Your task to perform on an android device: change the upload size in google photos Image 0: 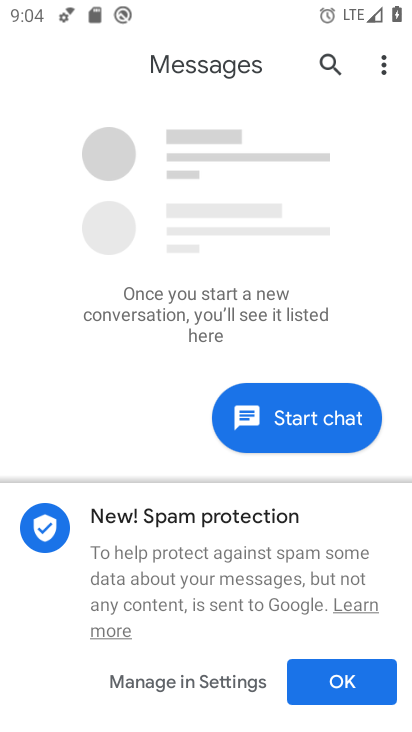
Step 0: press home button
Your task to perform on an android device: change the upload size in google photos Image 1: 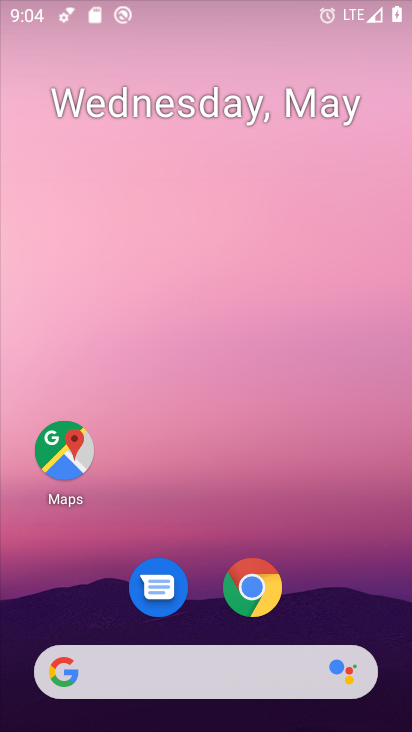
Step 1: drag from (219, 629) to (290, 132)
Your task to perform on an android device: change the upload size in google photos Image 2: 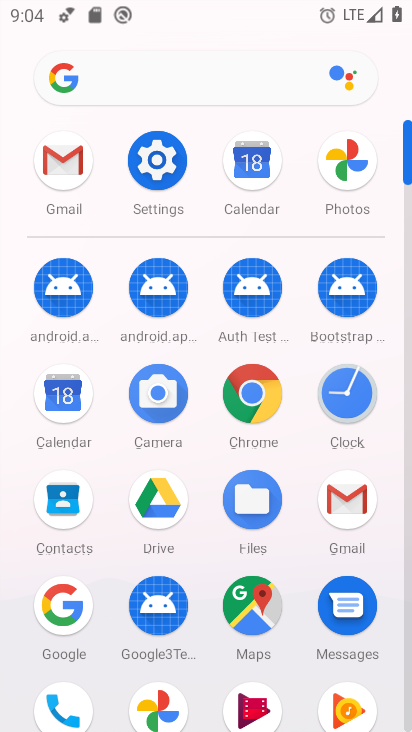
Step 2: drag from (201, 576) to (227, 320)
Your task to perform on an android device: change the upload size in google photos Image 3: 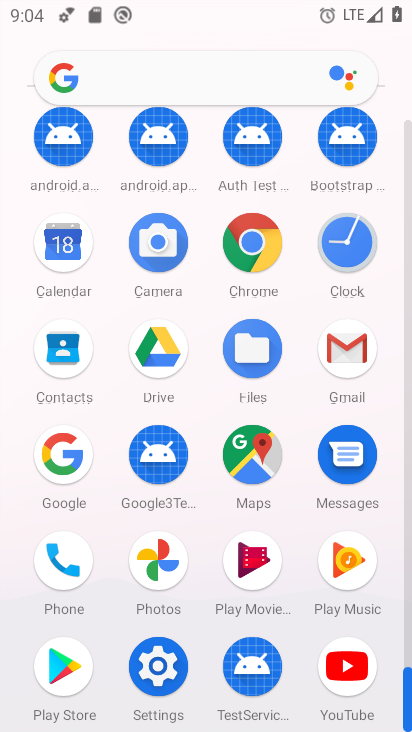
Step 3: click (171, 585)
Your task to perform on an android device: change the upload size in google photos Image 4: 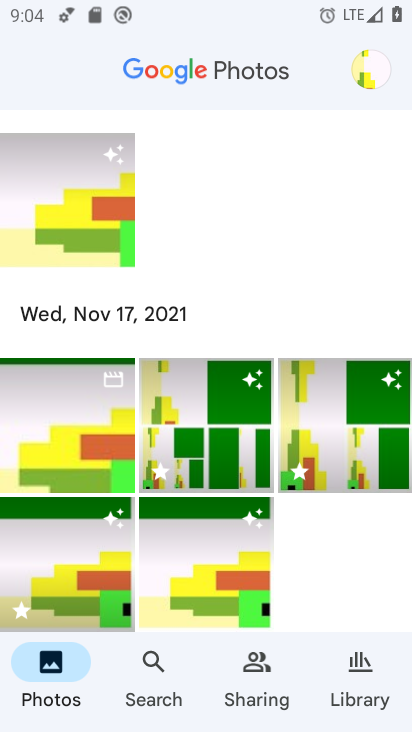
Step 4: click (373, 71)
Your task to perform on an android device: change the upload size in google photos Image 5: 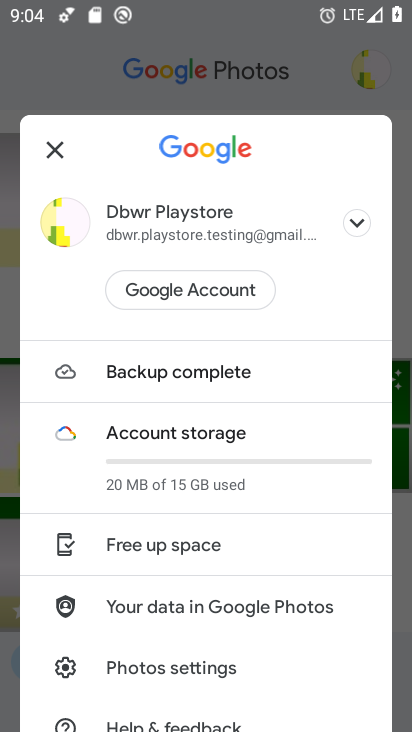
Step 5: click (183, 669)
Your task to perform on an android device: change the upload size in google photos Image 6: 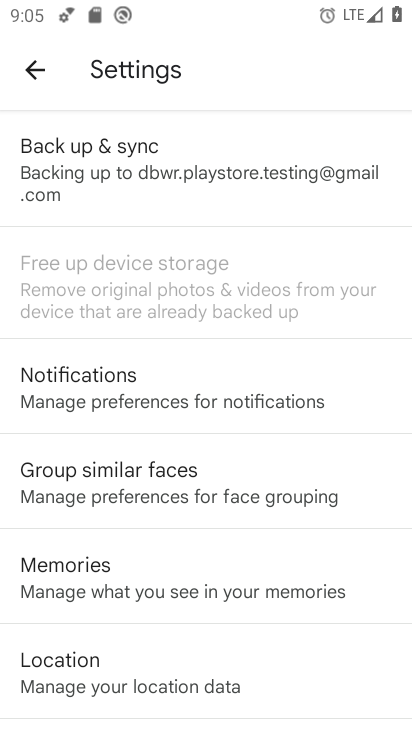
Step 6: drag from (136, 504) to (100, 592)
Your task to perform on an android device: change the upload size in google photos Image 7: 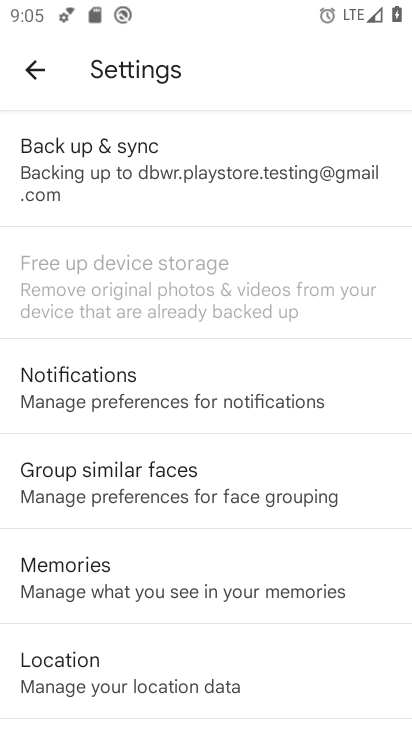
Step 7: click (144, 173)
Your task to perform on an android device: change the upload size in google photos Image 8: 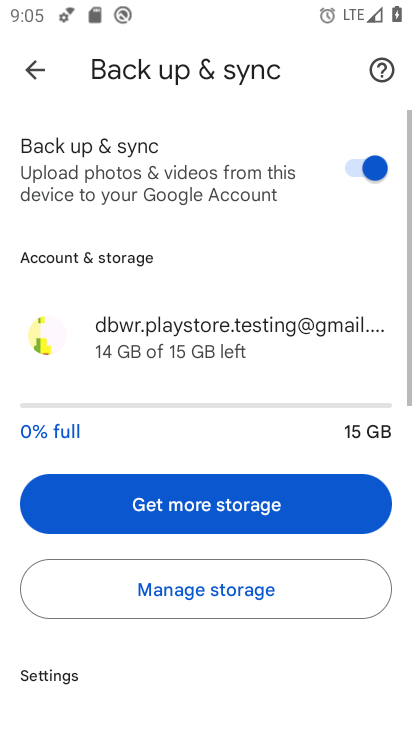
Step 8: click (213, 254)
Your task to perform on an android device: change the upload size in google photos Image 9: 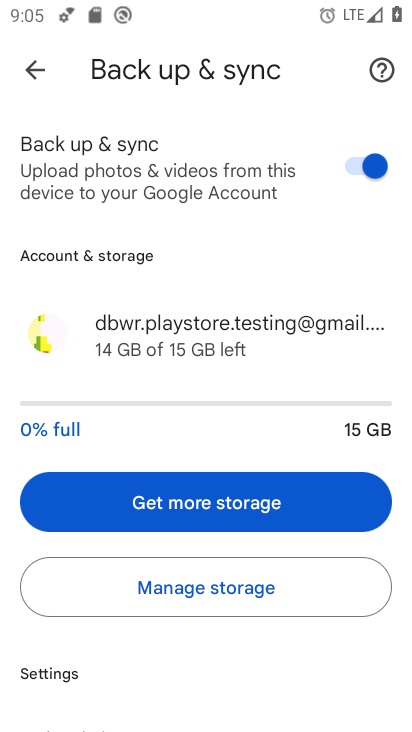
Step 9: drag from (162, 547) to (211, 200)
Your task to perform on an android device: change the upload size in google photos Image 10: 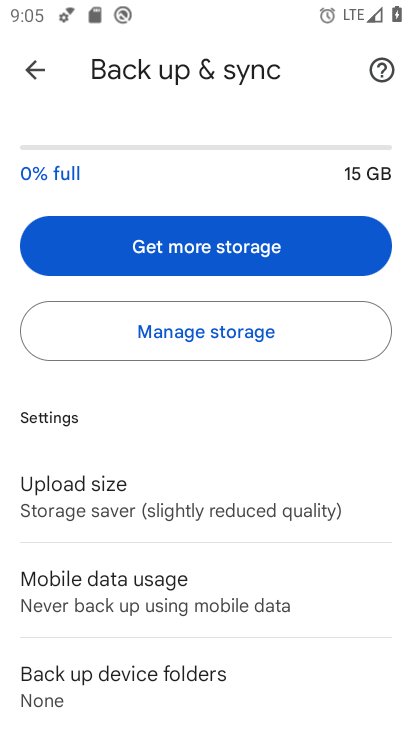
Step 10: click (137, 505)
Your task to perform on an android device: change the upload size in google photos Image 11: 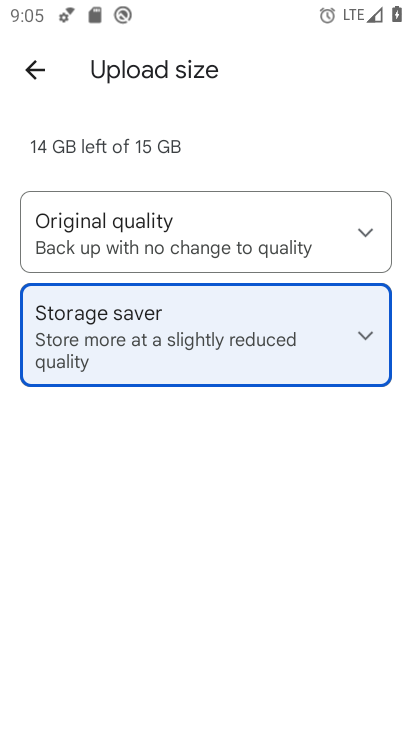
Step 11: click (140, 226)
Your task to perform on an android device: change the upload size in google photos Image 12: 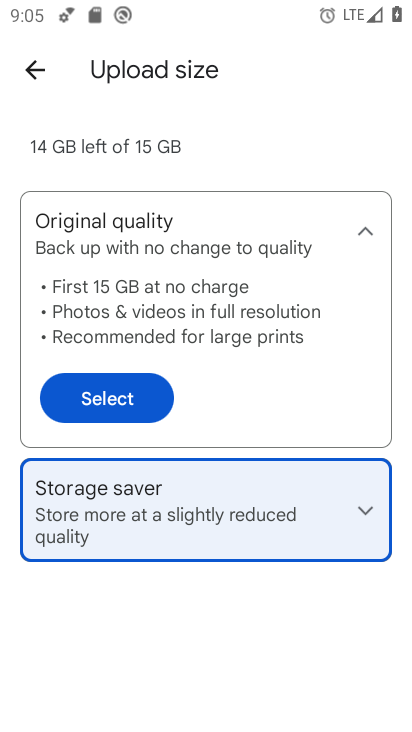
Step 12: click (121, 417)
Your task to perform on an android device: change the upload size in google photos Image 13: 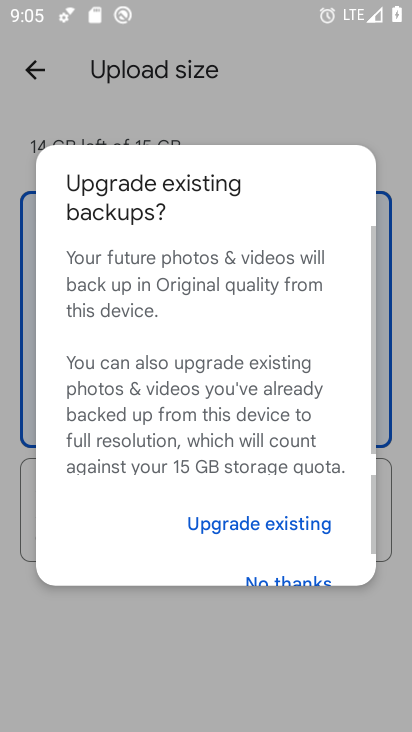
Step 13: drag from (289, 545) to (294, 432)
Your task to perform on an android device: change the upload size in google photos Image 14: 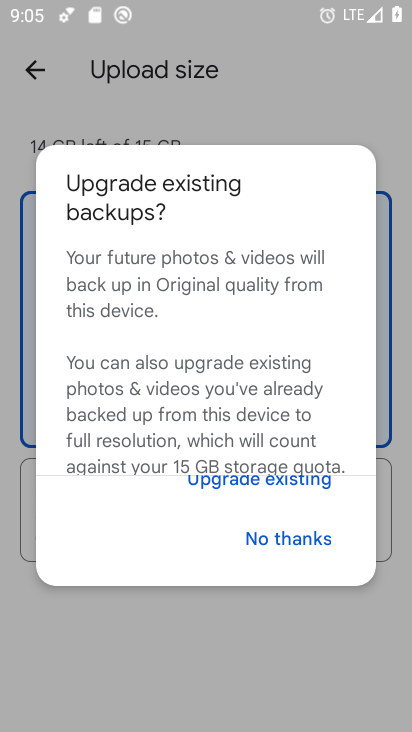
Step 14: click (293, 543)
Your task to perform on an android device: change the upload size in google photos Image 15: 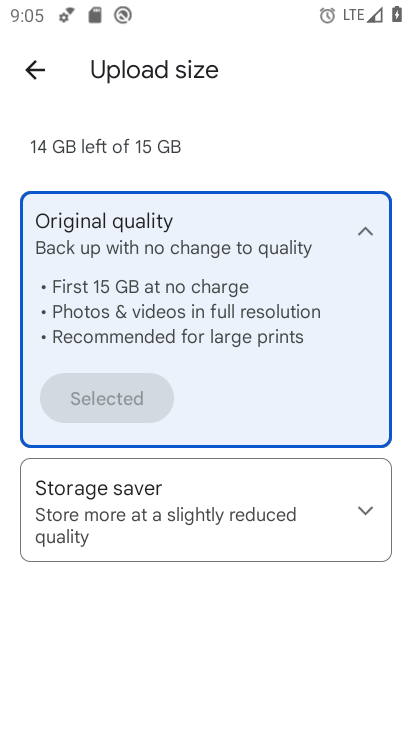
Step 15: task complete